Your task to perform on an android device: turn notification dots on Image 0: 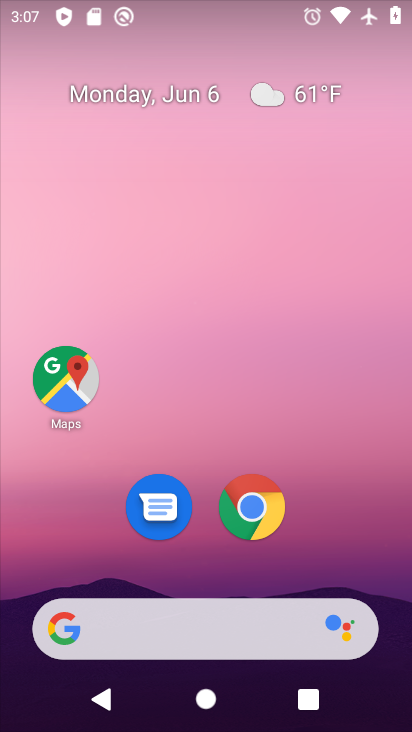
Step 0: drag from (335, 559) to (340, 129)
Your task to perform on an android device: turn notification dots on Image 1: 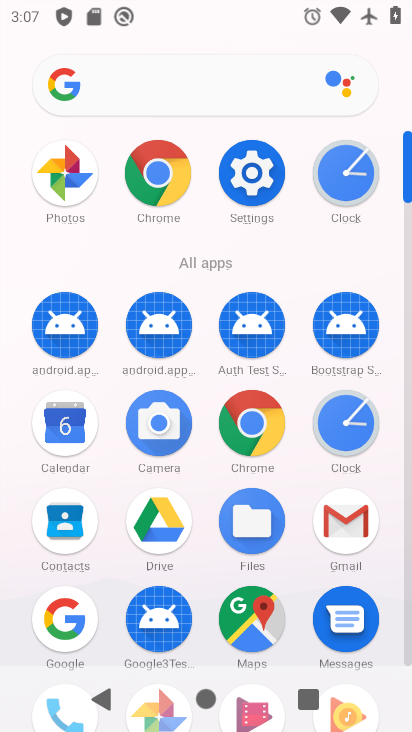
Step 1: click (256, 189)
Your task to perform on an android device: turn notification dots on Image 2: 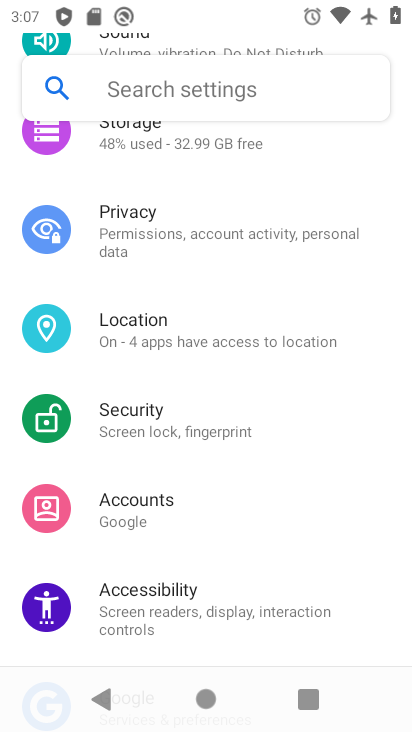
Step 2: drag from (315, 483) to (232, 706)
Your task to perform on an android device: turn notification dots on Image 3: 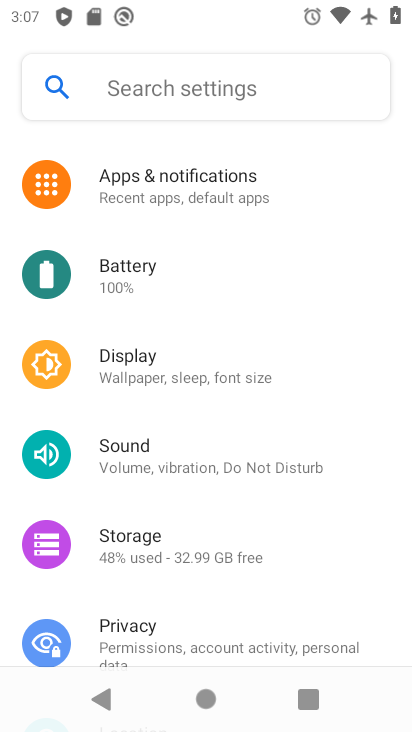
Step 3: click (232, 192)
Your task to perform on an android device: turn notification dots on Image 4: 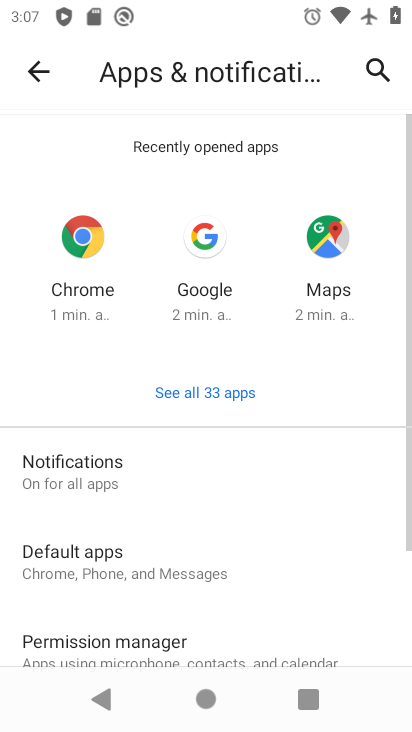
Step 4: click (215, 467)
Your task to perform on an android device: turn notification dots on Image 5: 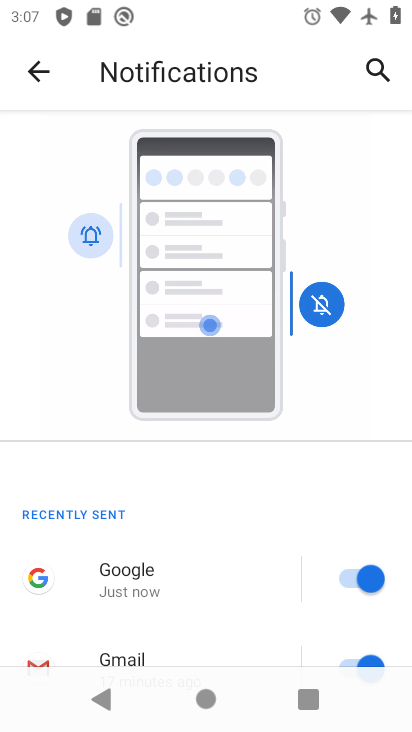
Step 5: drag from (227, 484) to (258, 25)
Your task to perform on an android device: turn notification dots on Image 6: 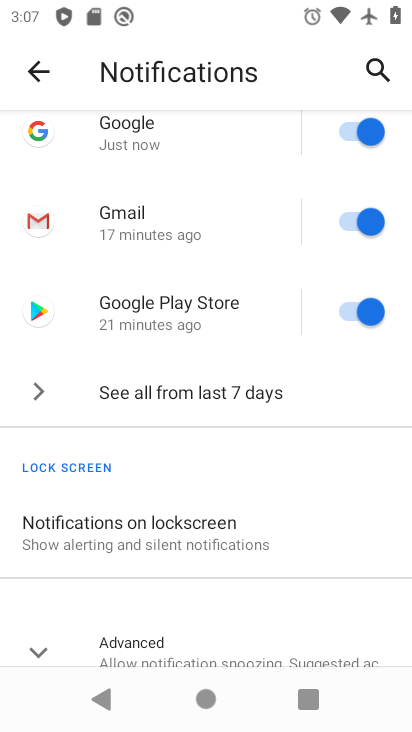
Step 6: click (170, 645)
Your task to perform on an android device: turn notification dots on Image 7: 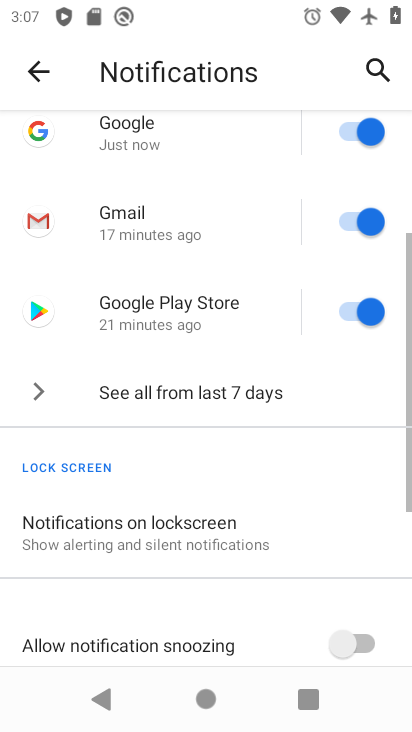
Step 7: task complete